Your task to perform on an android device: Show me popular games on the Play Store Image 0: 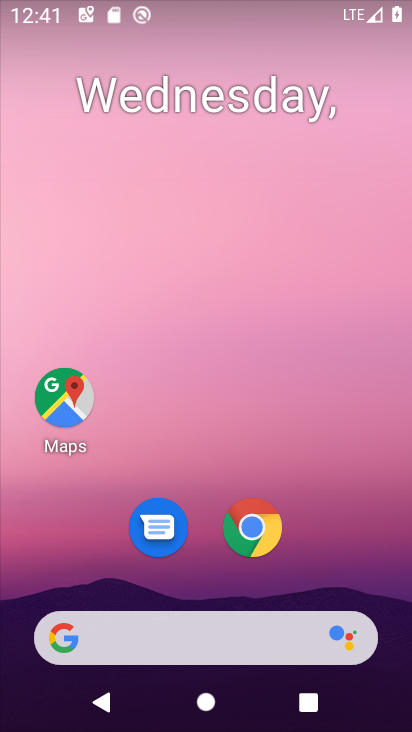
Step 0: drag from (282, 641) to (320, 67)
Your task to perform on an android device: Show me popular games on the Play Store Image 1: 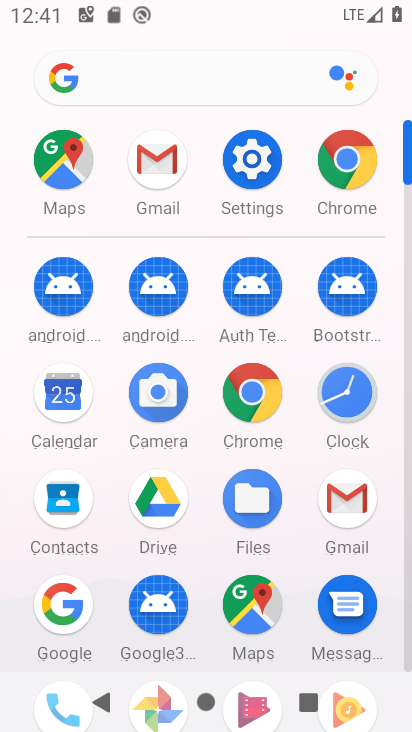
Step 1: drag from (308, 584) to (315, 192)
Your task to perform on an android device: Show me popular games on the Play Store Image 2: 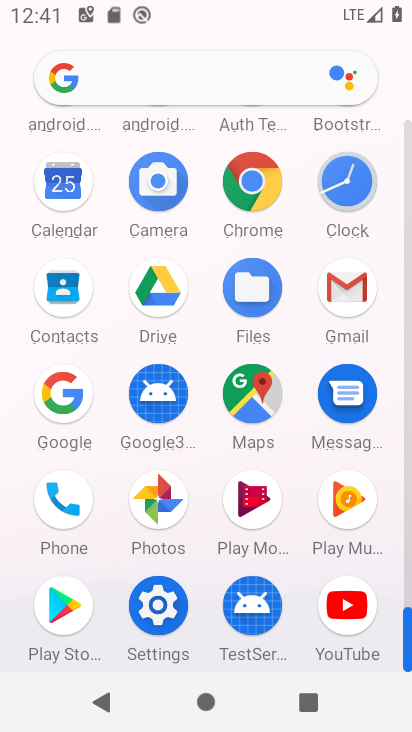
Step 2: click (48, 612)
Your task to perform on an android device: Show me popular games on the Play Store Image 3: 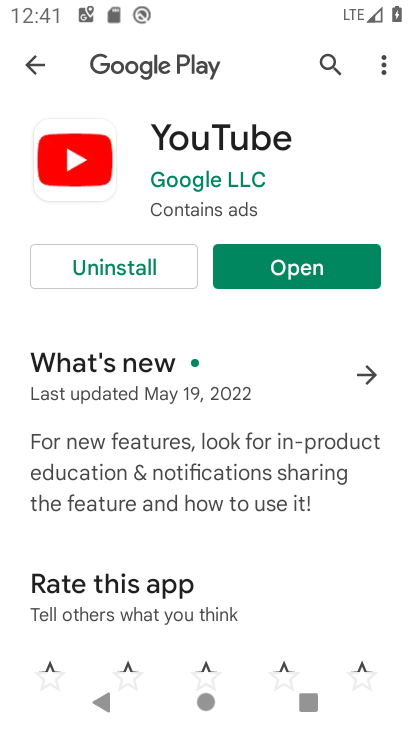
Step 3: press back button
Your task to perform on an android device: Show me popular games on the Play Store Image 4: 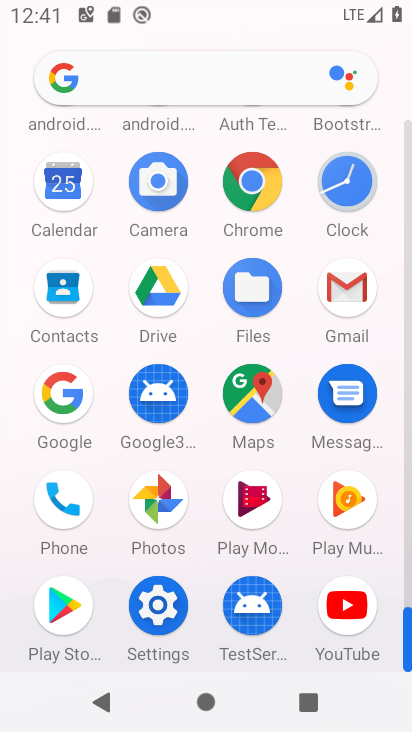
Step 4: drag from (303, 594) to (342, 337)
Your task to perform on an android device: Show me popular games on the Play Store Image 5: 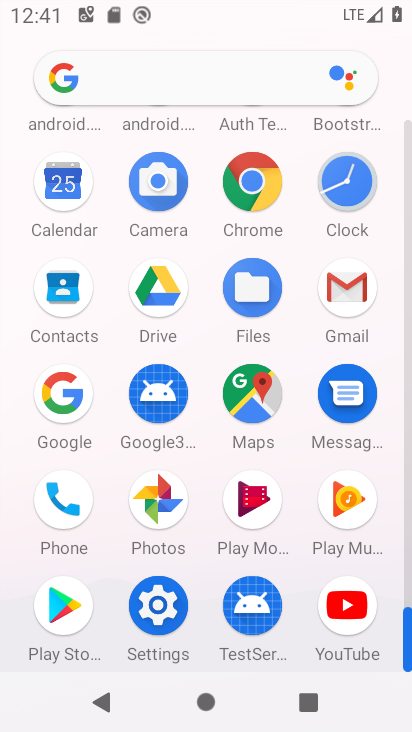
Step 5: click (79, 621)
Your task to perform on an android device: Show me popular games on the Play Store Image 6: 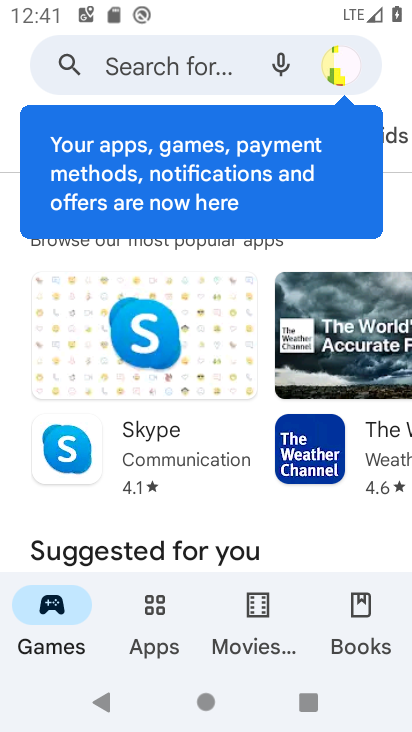
Step 6: drag from (204, 557) to (277, 128)
Your task to perform on an android device: Show me popular games on the Play Store Image 7: 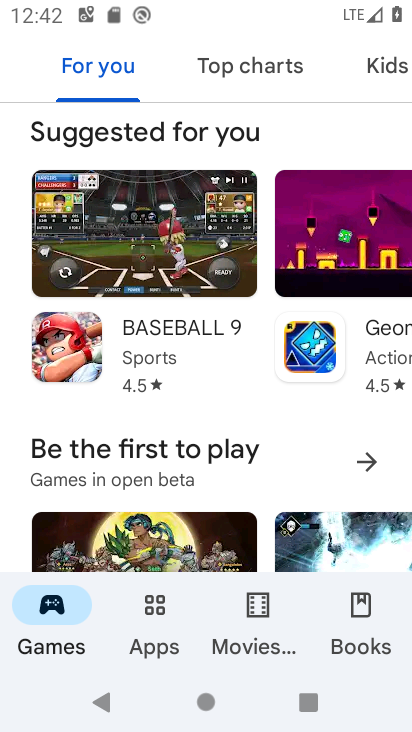
Step 7: drag from (281, 492) to (268, 119)
Your task to perform on an android device: Show me popular games on the Play Store Image 8: 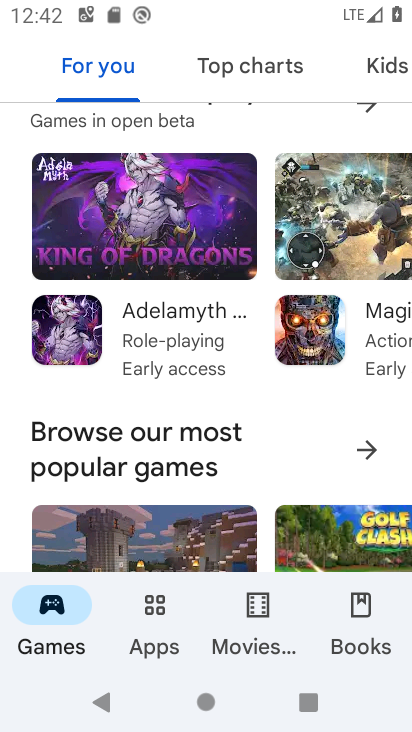
Step 8: drag from (286, 487) to (325, 236)
Your task to perform on an android device: Show me popular games on the Play Store Image 9: 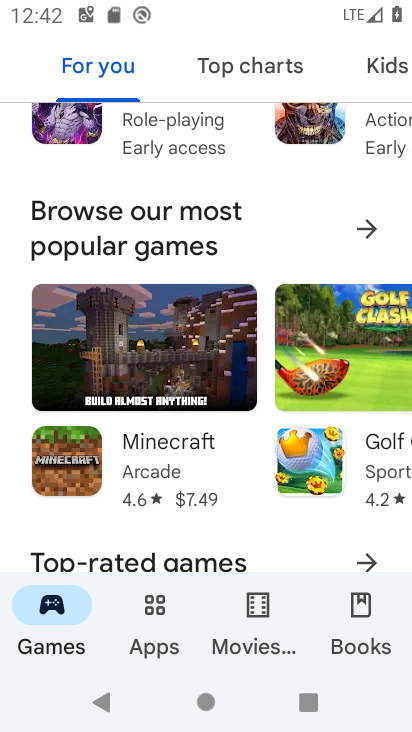
Step 9: click (363, 226)
Your task to perform on an android device: Show me popular games on the Play Store Image 10: 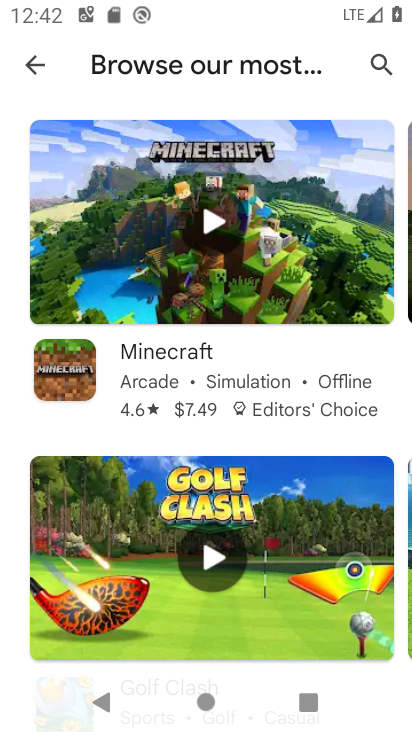
Step 10: task complete